Your task to perform on an android device: Open the calendar and show me this week's events? Image 0: 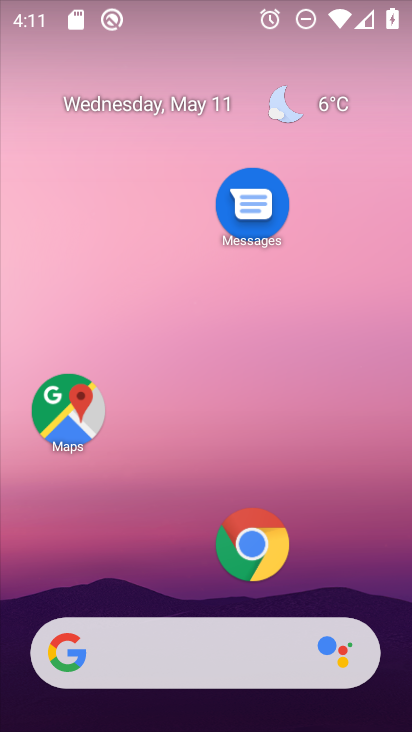
Step 0: drag from (183, 428) to (281, 71)
Your task to perform on an android device: Open the calendar and show me this week's events? Image 1: 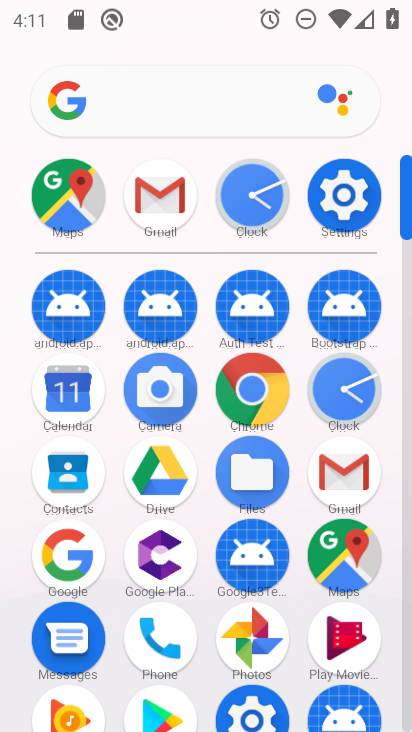
Step 1: click (66, 400)
Your task to perform on an android device: Open the calendar and show me this week's events? Image 2: 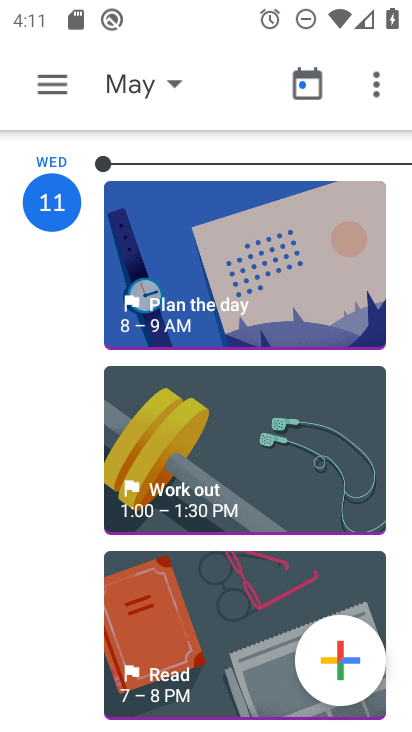
Step 2: click (145, 81)
Your task to perform on an android device: Open the calendar and show me this week's events? Image 3: 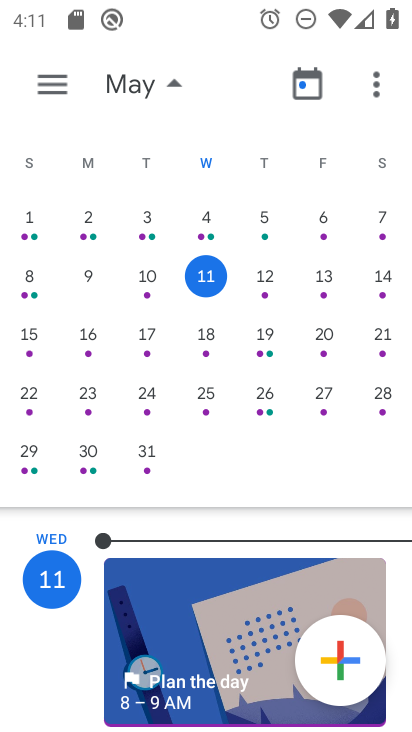
Step 3: click (201, 277)
Your task to perform on an android device: Open the calendar and show me this week's events? Image 4: 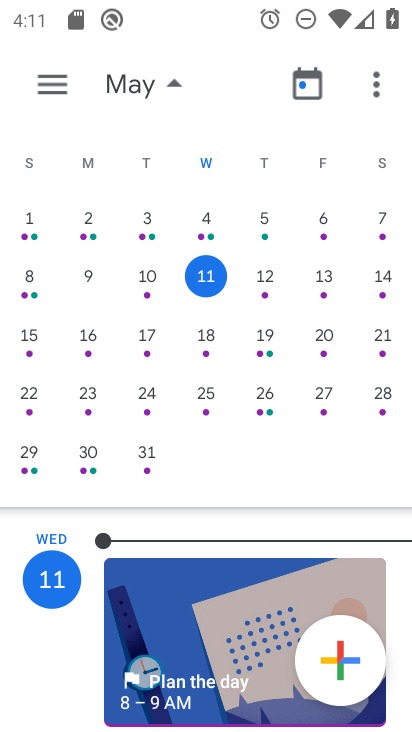
Step 4: drag from (201, 629) to (334, 160)
Your task to perform on an android device: Open the calendar and show me this week's events? Image 5: 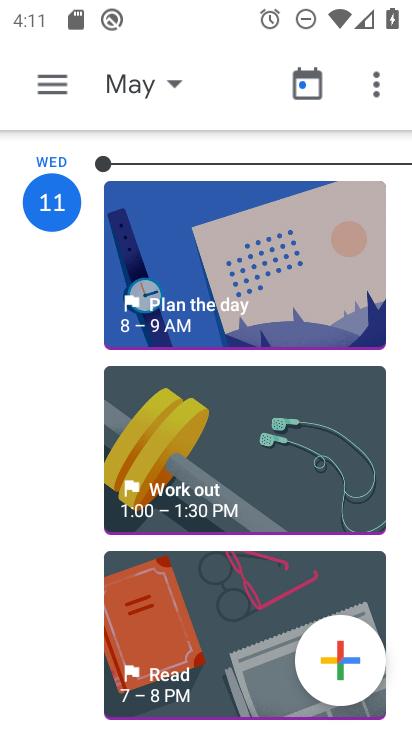
Step 5: drag from (213, 579) to (336, 95)
Your task to perform on an android device: Open the calendar and show me this week's events? Image 6: 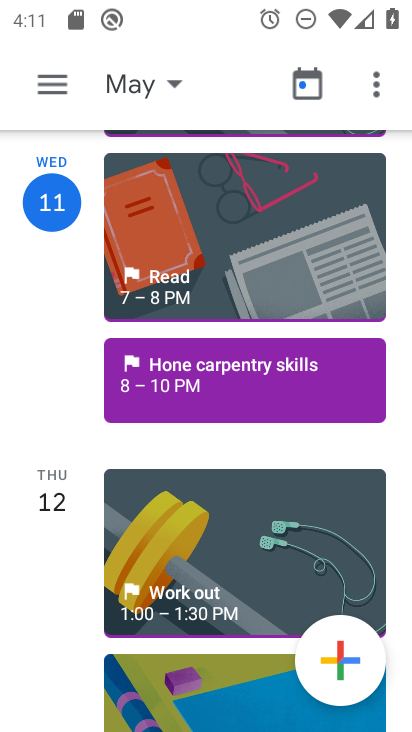
Step 6: drag from (186, 555) to (297, 129)
Your task to perform on an android device: Open the calendar and show me this week's events? Image 7: 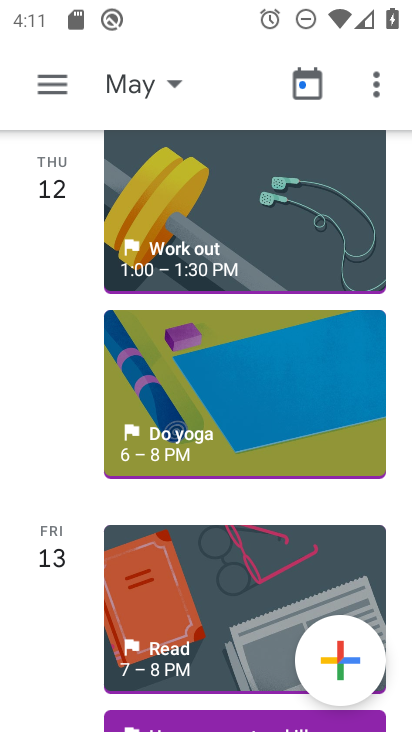
Step 7: click (177, 404)
Your task to perform on an android device: Open the calendar and show me this week's events? Image 8: 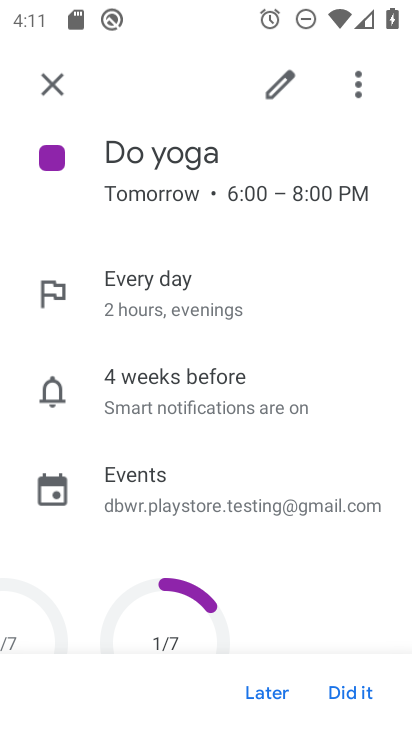
Step 8: task complete